Your task to perform on an android device: check battery use Image 0: 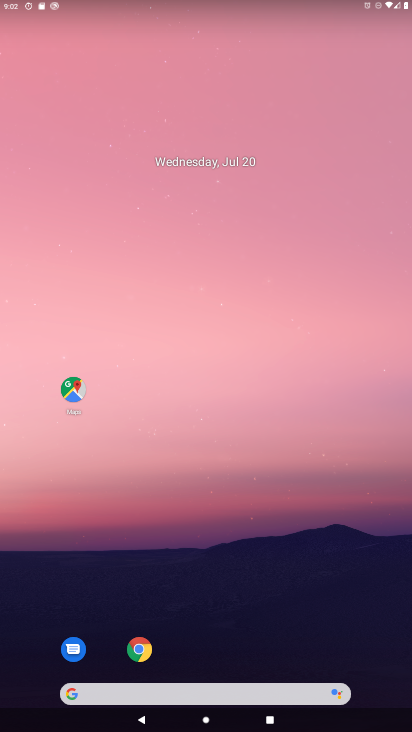
Step 0: drag from (174, 691) to (255, 4)
Your task to perform on an android device: check battery use Image 1: 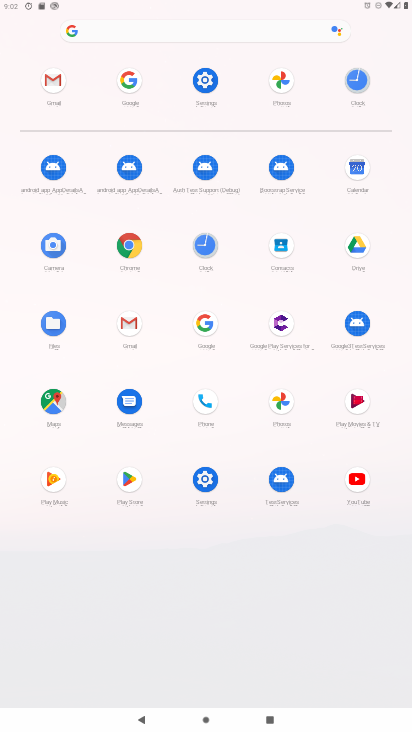
Step 1: click (205, 80)
Your task to perform on an android device: check battery use Image 2: 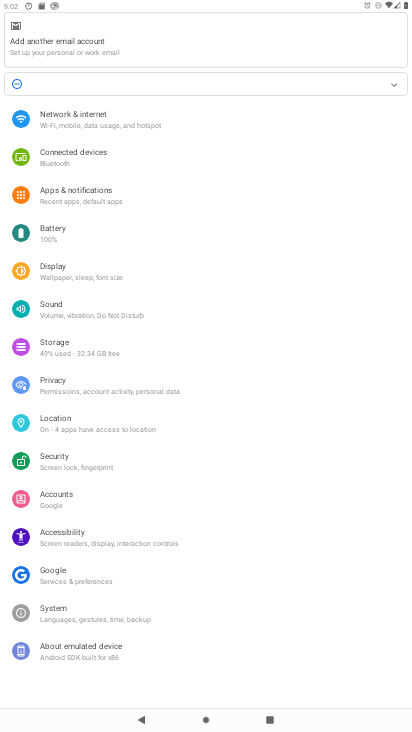
Step 2: click (53, 236)
Your task to perform on an android device: check battery use Image 3: 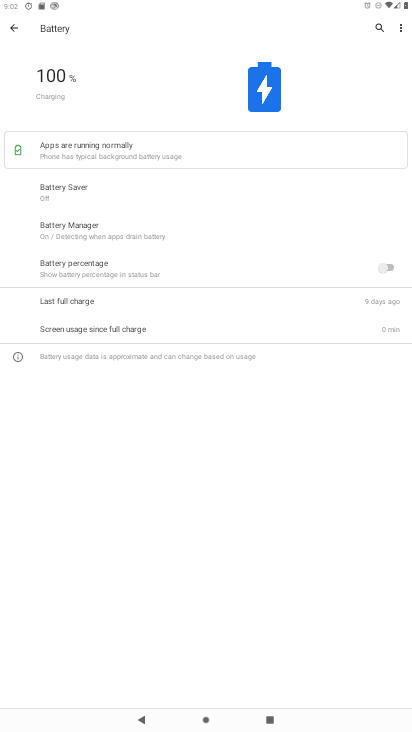
Step 3: click (401, 26)
Your task to perform on an android device: check battery use Image 4: 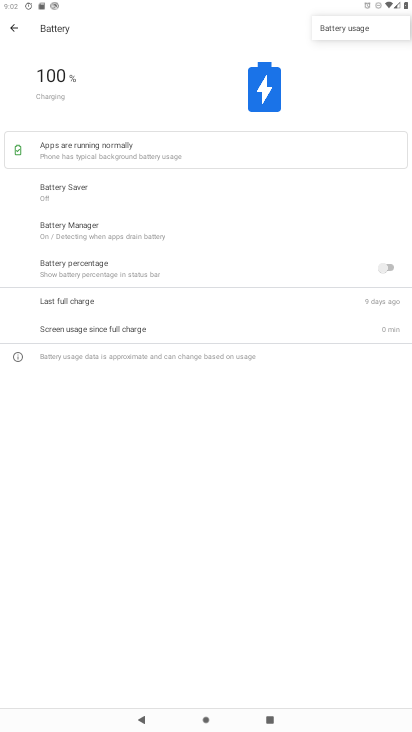
Step 4: click (357, 30)
Your task to perform on an android device: check battery use Image 5: 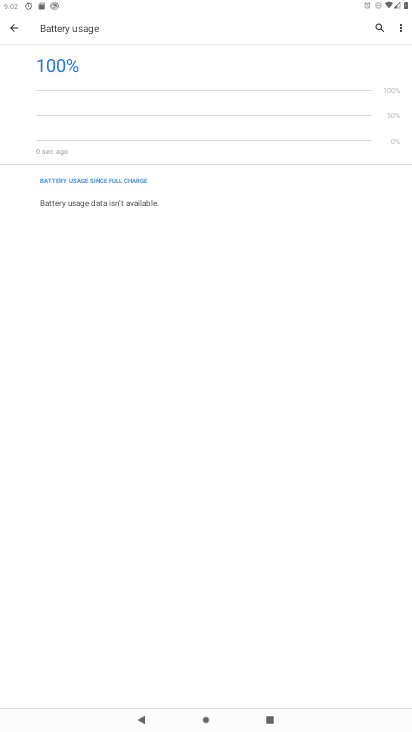
Step 5: task complete